Your task to perform on an android device: Open display settings Image 0: 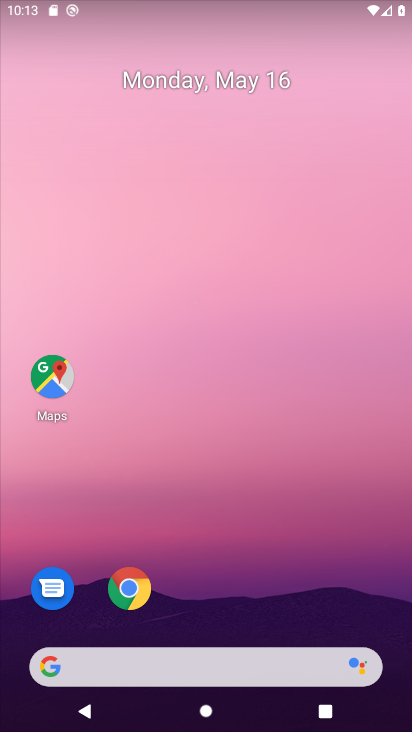
Step 0: drag from (221, 630) to (219, 159)
Your task to perform on an android device: Open display settings Image 1: 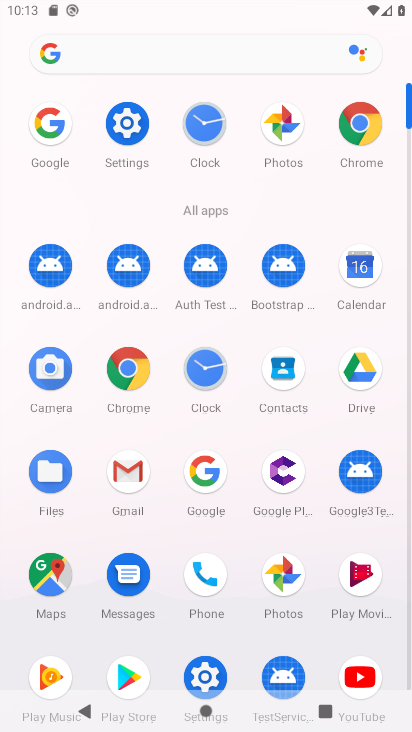
Step 1: click (126, 116)
Your task to perform on an android device: Open display settings Image 2: 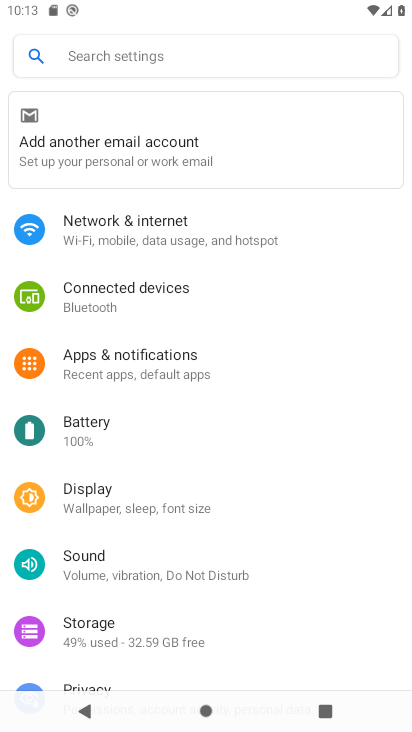
Step 2: click (126, 481)
Your task to perform on an android device: Open display settings Image 3: 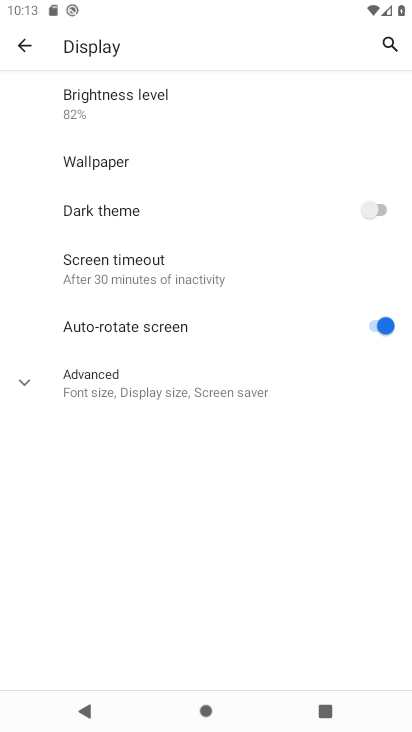
Step 3: click (20, 374)
Your task to perform on an android device: Open display settings Image 4: 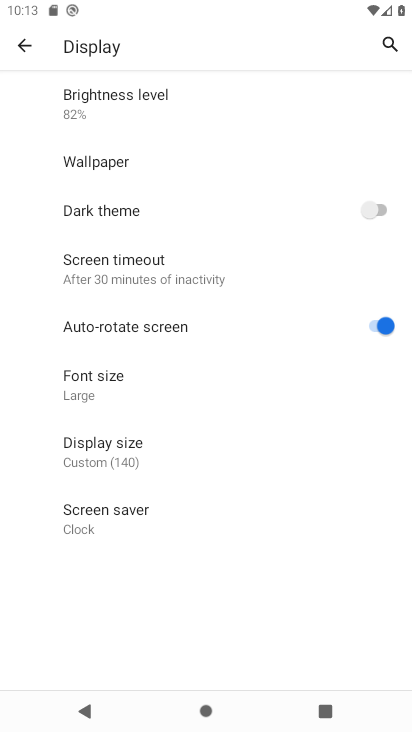
Step 4: task complete